Your task to perform on an android device: install app "PlayWell" Image 0: 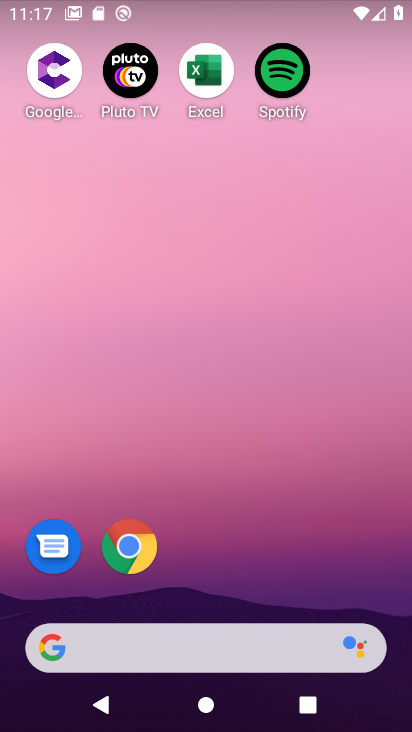
Step 0: drag from (182, 554) to (214, 252)
Your task to perform on an android device: install app "PlayWell" Image 1: 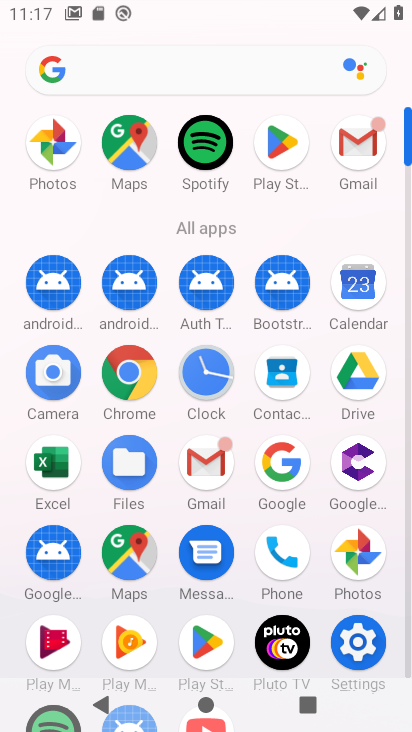
Step 1: click (276, 129)
Your task to perform on an android device: install app "PlayWell" Image 2: 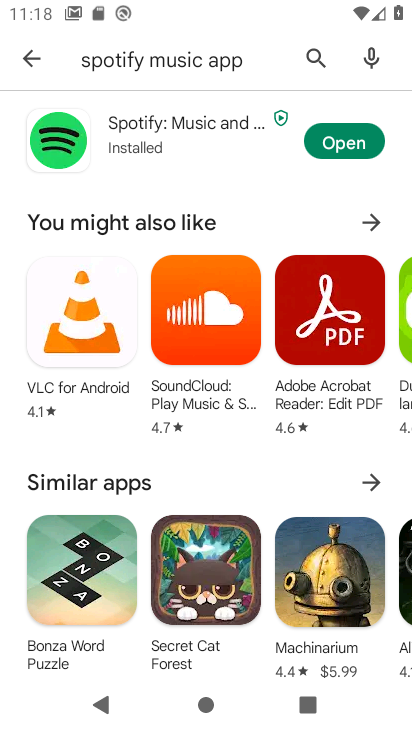
Step 2: click (27, 45)
Your task to perform on an android device: install app "PlayWell" Image 3: 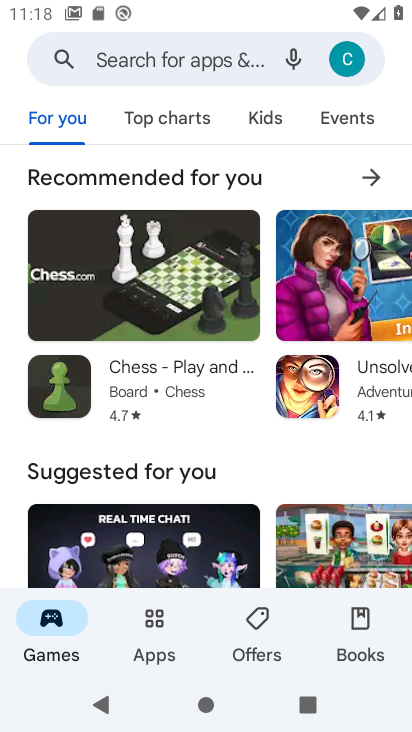
Step 3: click (175, 49)
Your task to perform on an android device: install app "PlayWell" Image 4: 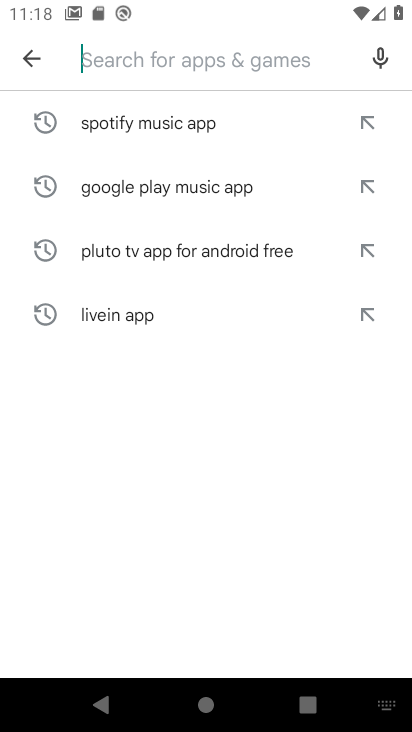
Step 4: type "PlayWell "
Your task to perform on an android device: install app "PlayWell" Image 5: 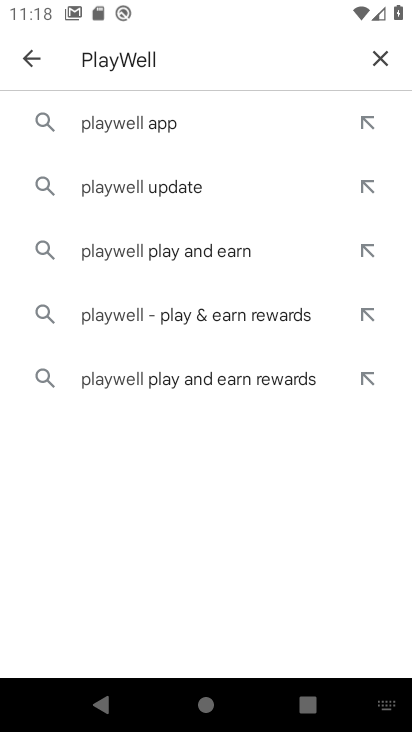
Step 5: click (85, 117)
Your task to perform on an android device: install app "PlayWell" Image 6: 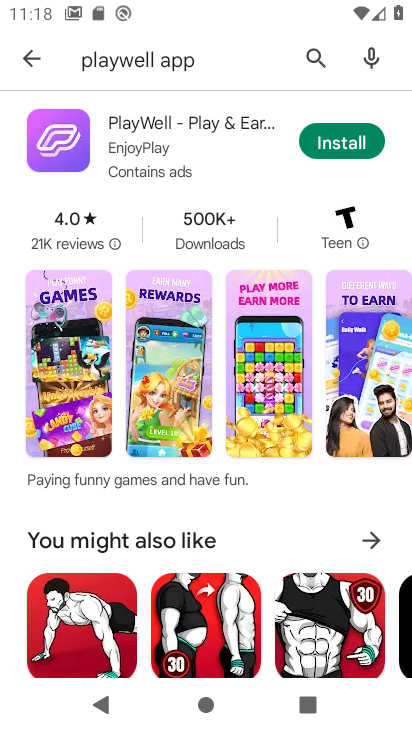
Step 6: click (335, 145)
Your task to perform on an android device: install app "PlayWell" Image 7: 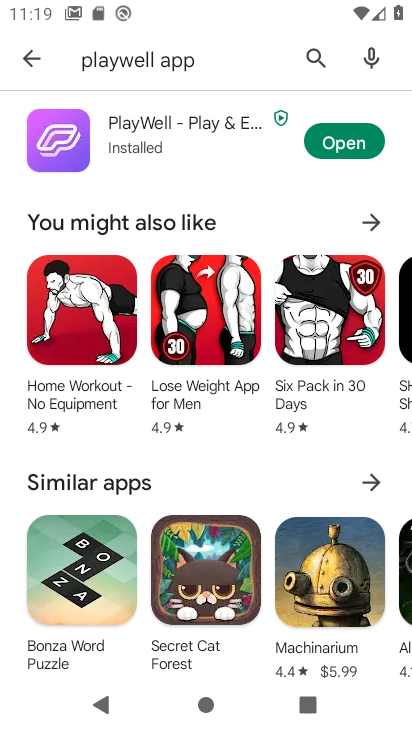
Step 7: click (335, 145)
Your task to perform on an android device: install app "PlayWell" Image 8: 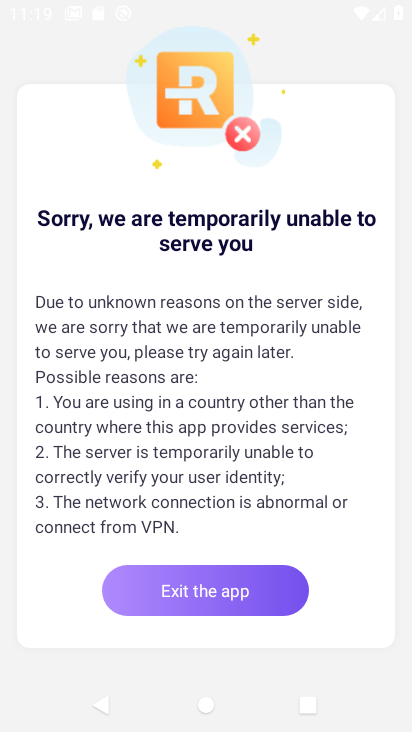
Step 8: task complete